Your task to perform on an android device: turn on notifications settings in the gmail app Image 0: 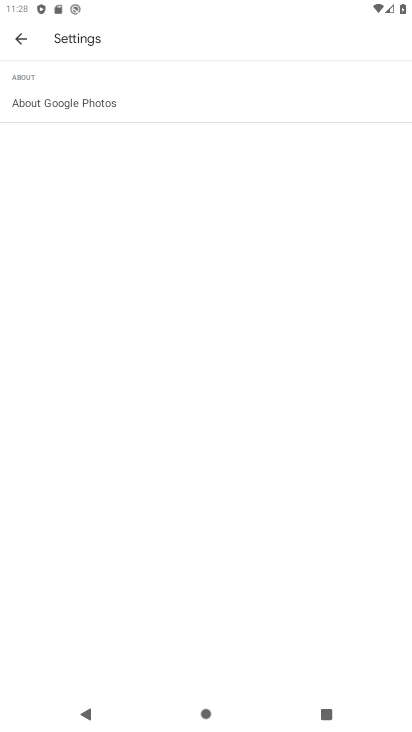
Step 0: press home button
Your task to perform on an android device: turn on notifications settings in the gmail app Image 1: 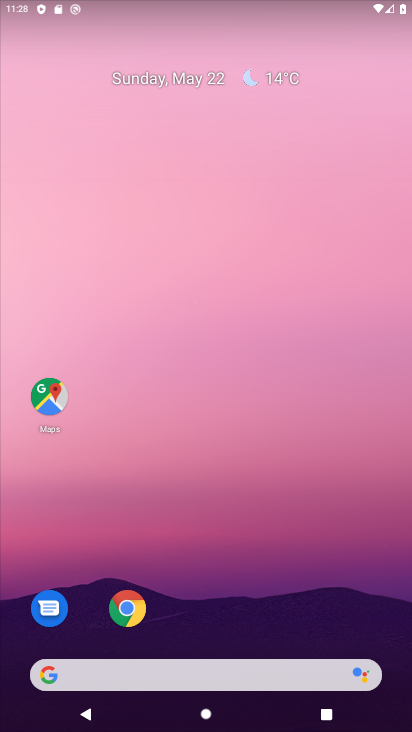
Step 1: drag from (270, 637) to (284, 191)
Your task to perform on an android device: turn on notifications settings in the gmail app Image 2: 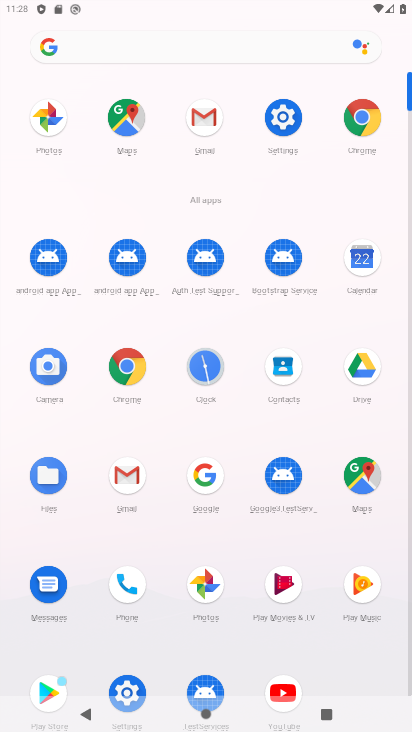
Step 2: click (208, 132)
Your task to perform on an android device: turn on notifications settings in the gmail app Image 3: 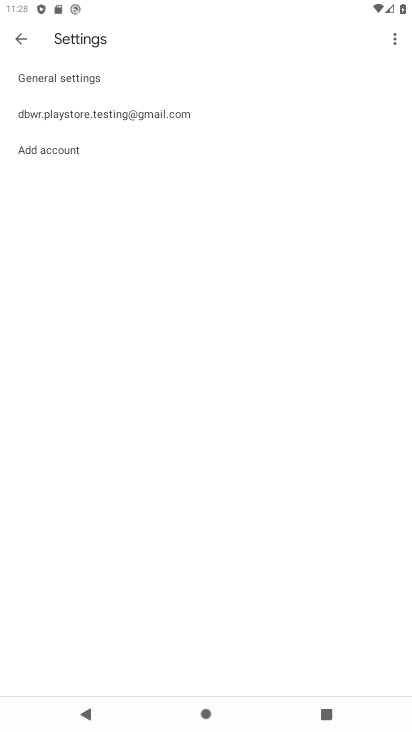
Step 3: click (195, 125)
Your task to perform on an android device: turn on notifications settings in the gmail app Image 4: 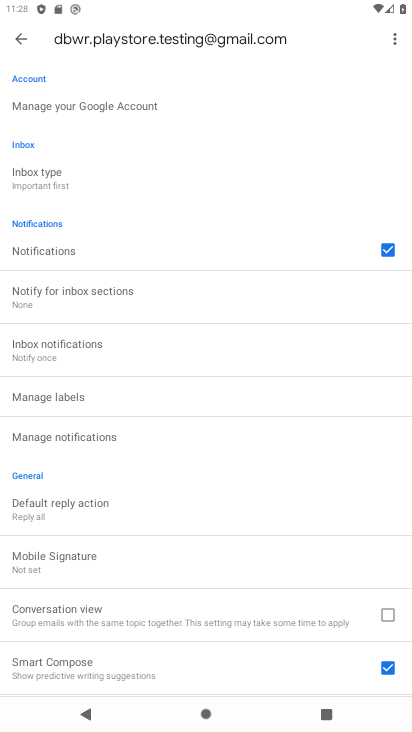
Step 4: click (160, 445)
Your task to perform on an android device: turn on notifications settings in the gmail app Image 5: 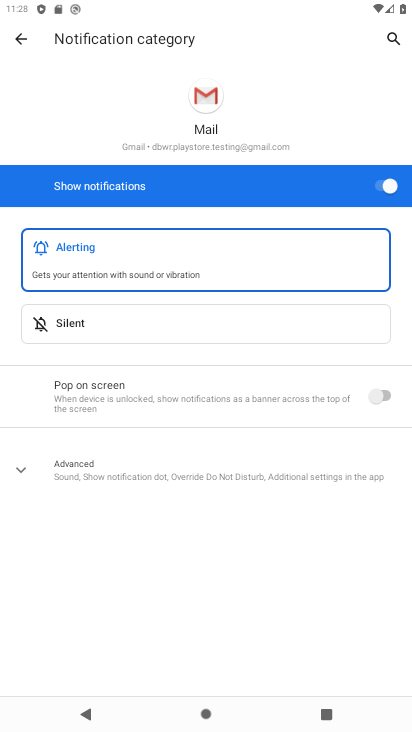
Step 5: task complete